Your task to perform on an android device: Open Android settings Image 0: 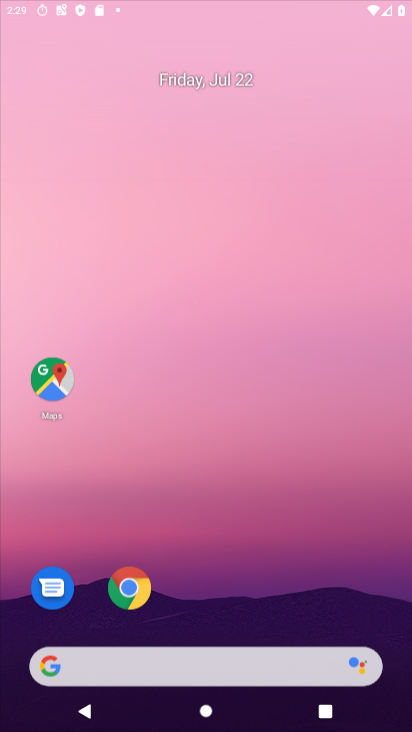
Step 0: press home button
Your task to perform on an android device: Open Android settings Image 1: 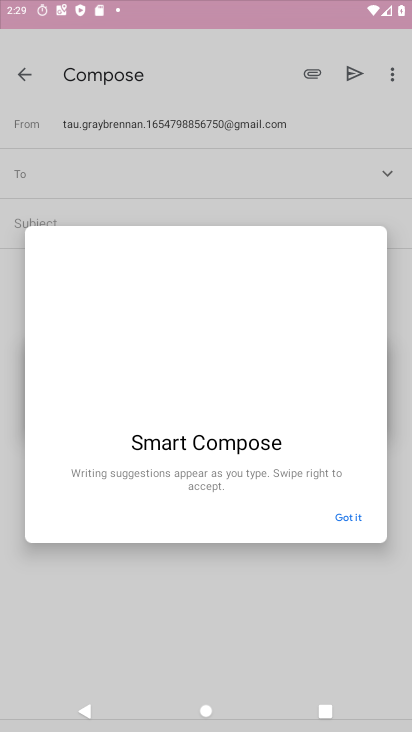
Step 1: drag from (215, 622) to (178, 13)
Your task to perform on an android device: Open Android settings Image 2: 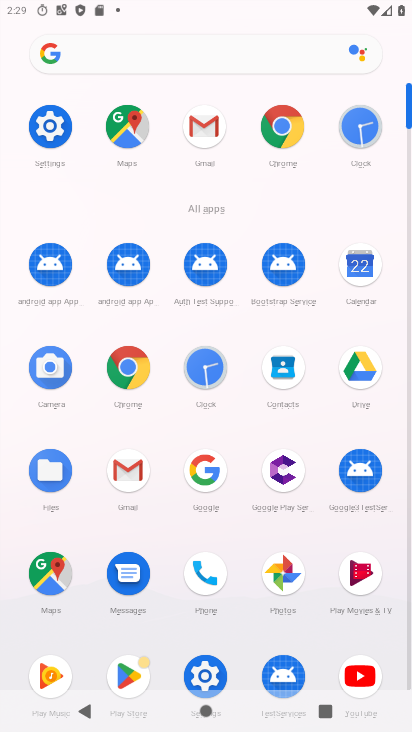
Step 2: click (48, 122)
Your task to perform on an android device: Open Android settings Image 3: 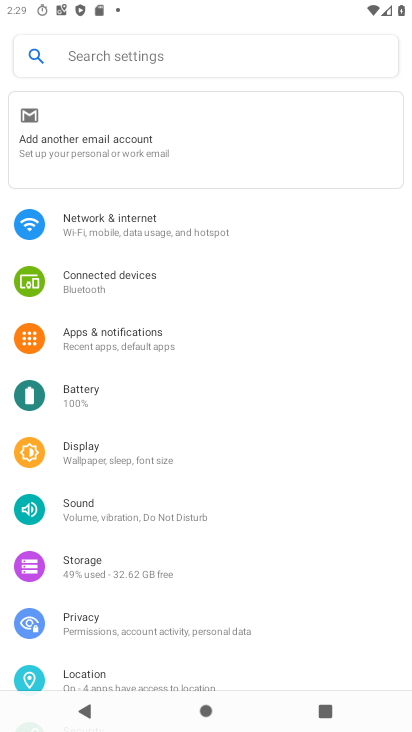
Step 3: drag from (141, 676) to (201, 105)
Your task to perform on an android device: Open Android settings Image 4: 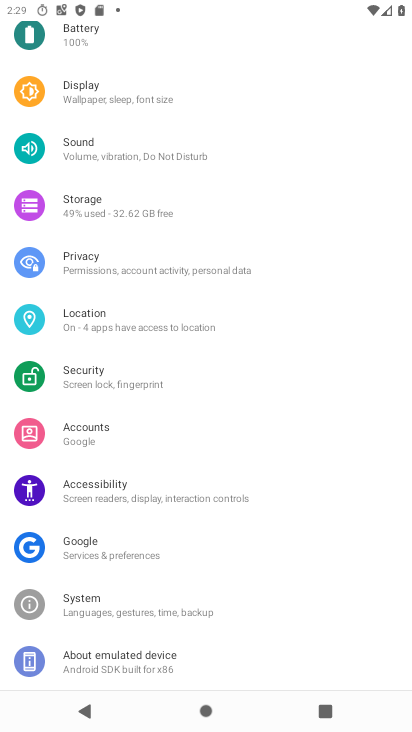
Step 4: click (190, 657)
Your task to perform on an android device: Open Android settings Image 5: 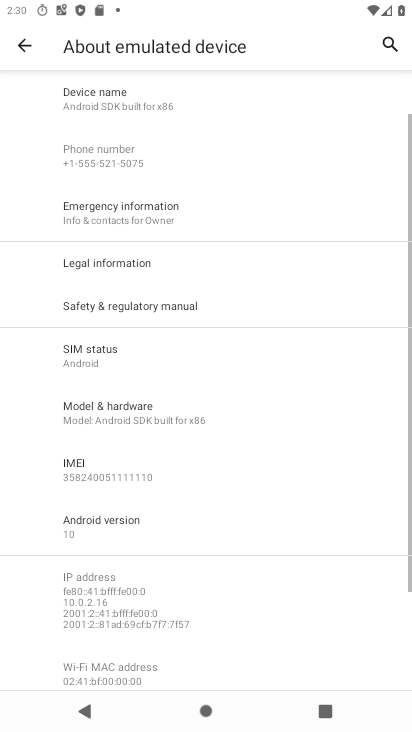
Step 5: click (121, 529)
Your task to perform on an android device: Open Android settings Image 6: 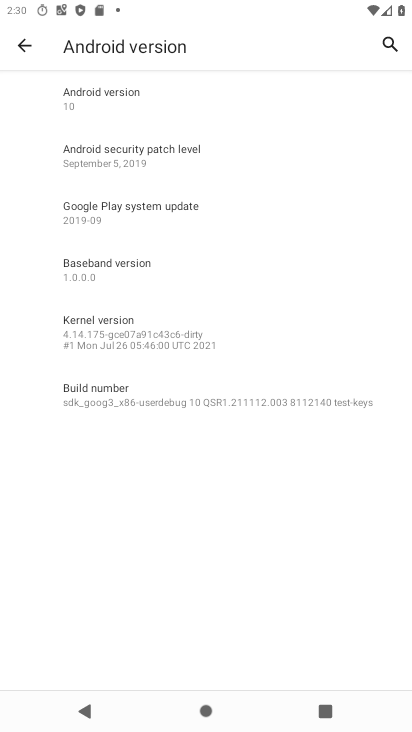
Step 6: task complete